Your task to perform on an android device: Add "bose soundlink" to the cart on costco.com Image 0: 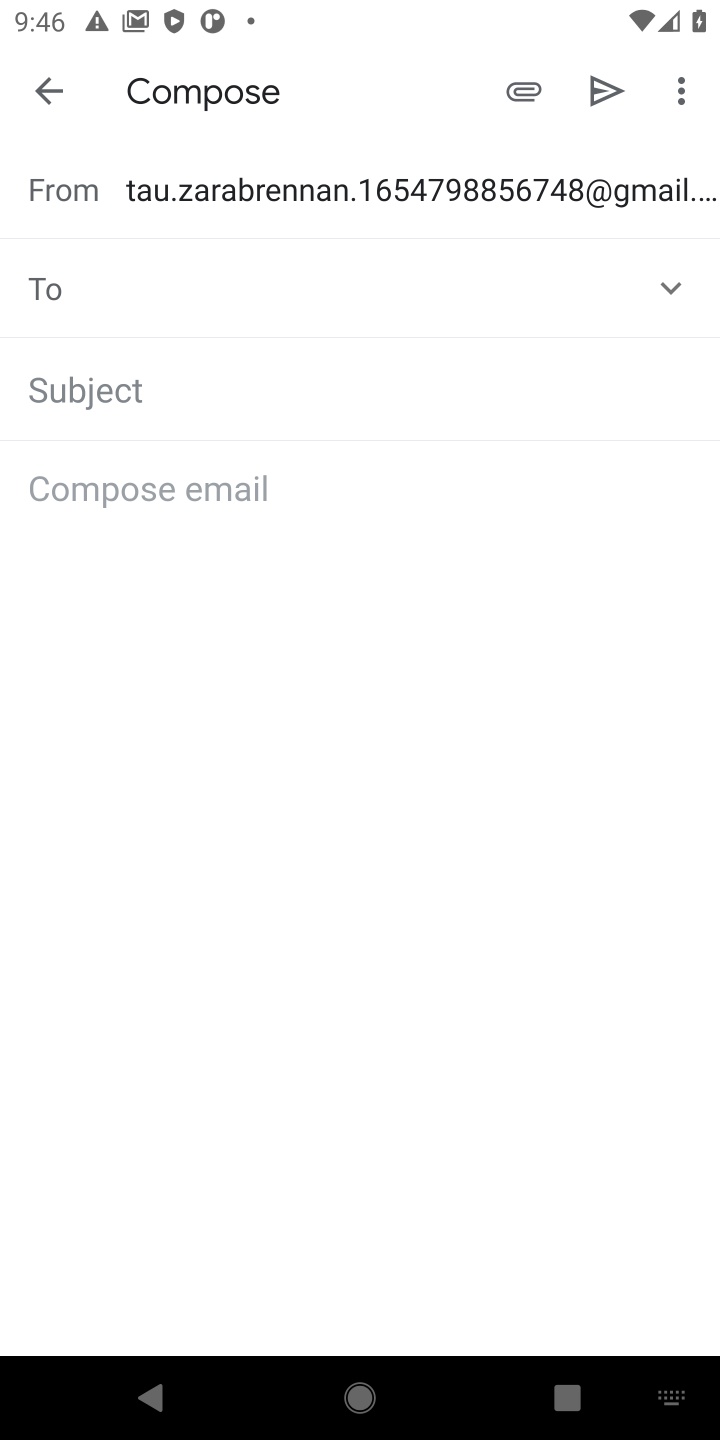
Step 0: press home button
Your task to perform on an android device: Add "bose soundlink" to the cart on costco.com Image 1: 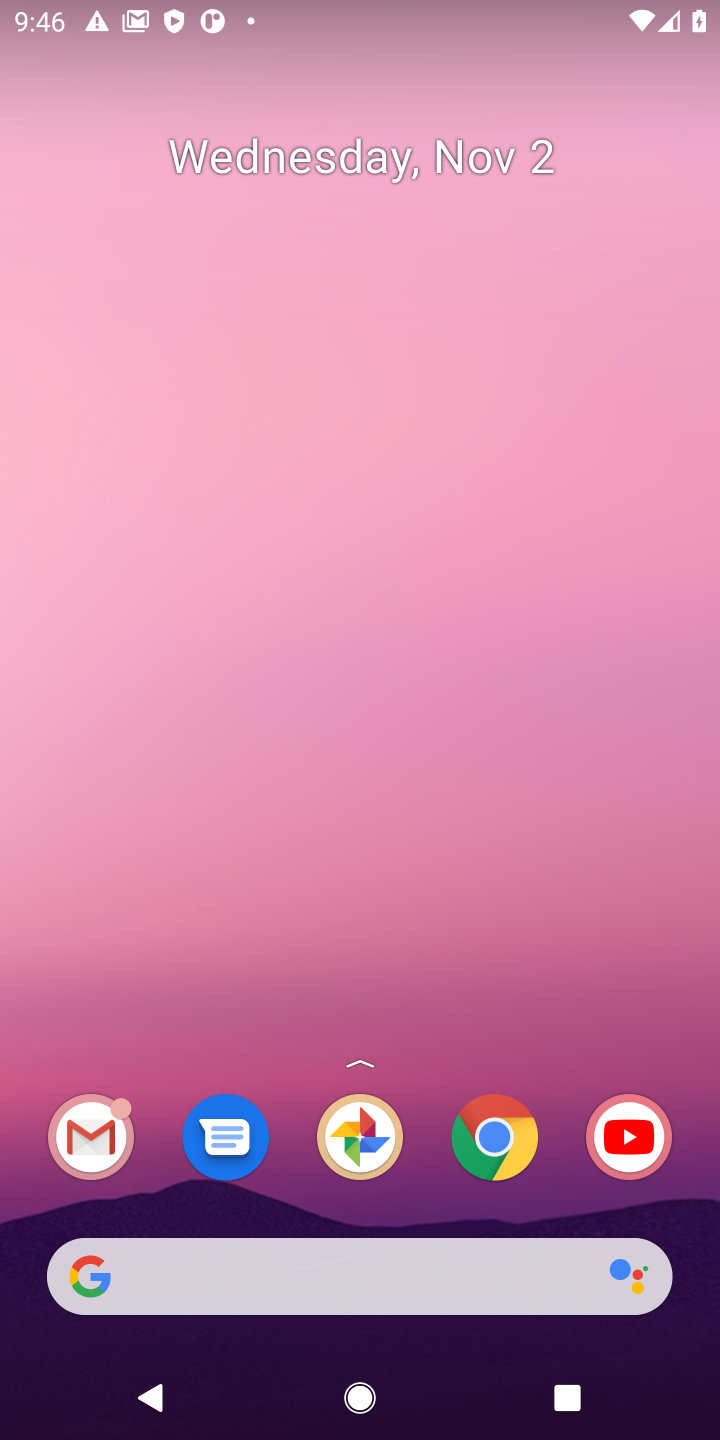
Step 1: click (498, 1145)
Your task to perform on an android device: Add "bose soundlink" to the cart on costco.com Image 2: 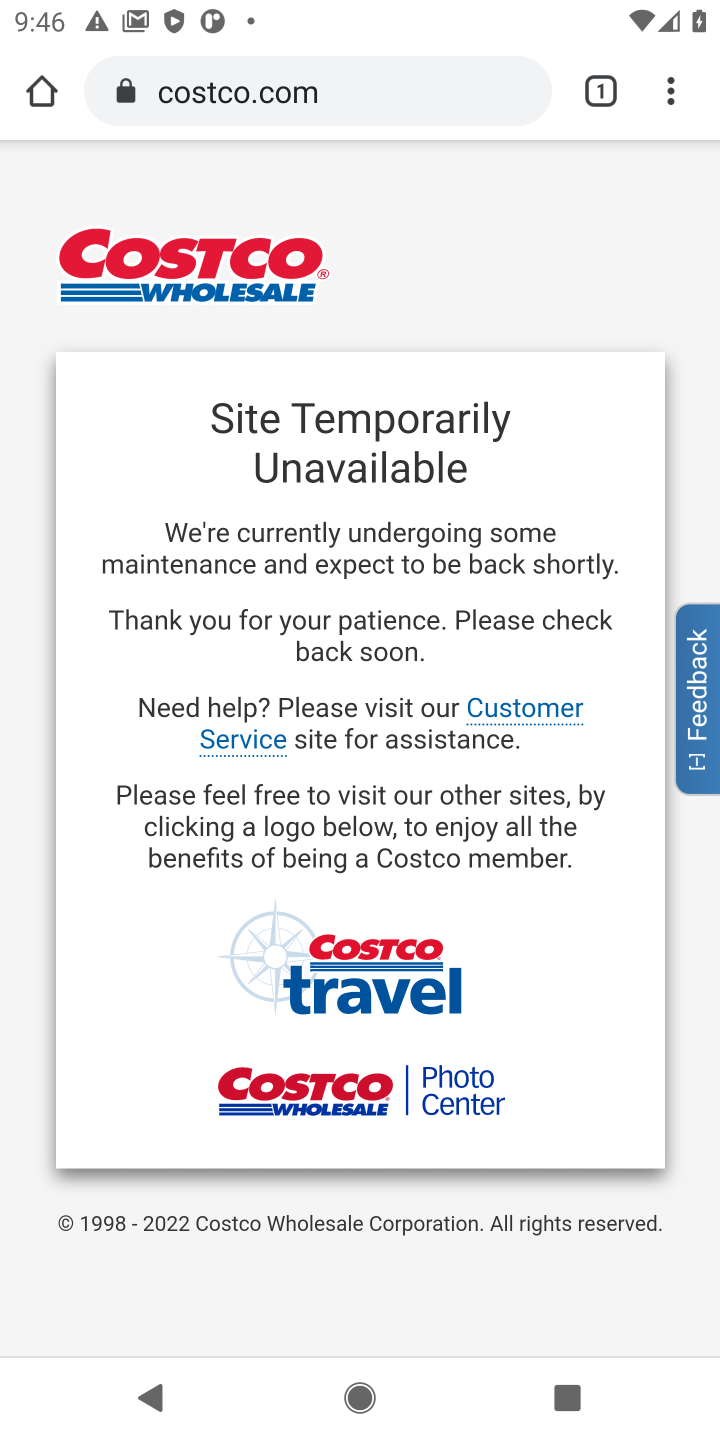
Step 2: click (338, 83)
Your task to perform on an android device: Add "bose soundlink" to the cart on costco.com Image 3: 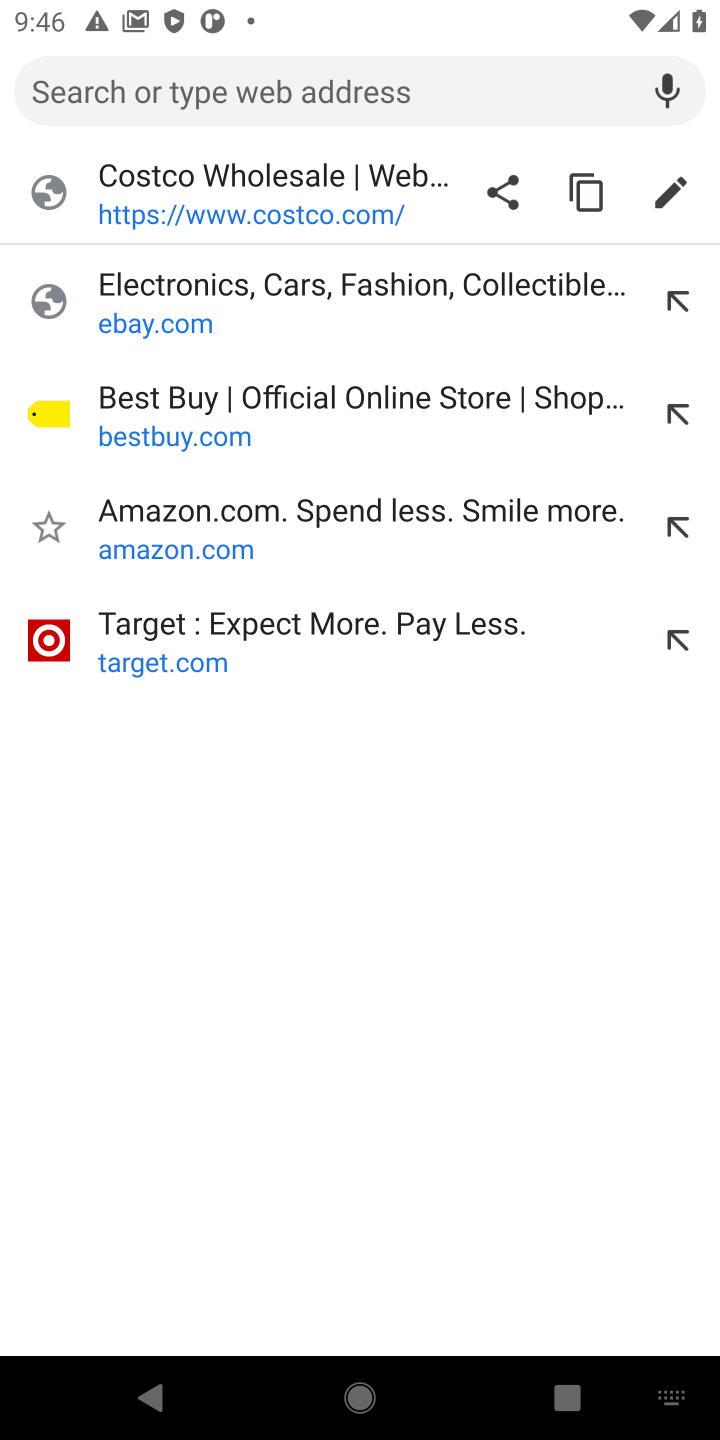
Step 3: click (141, 188)
Your task to perform on an android device: Add "bose soundlink" to the cart on costco.com Image 4: 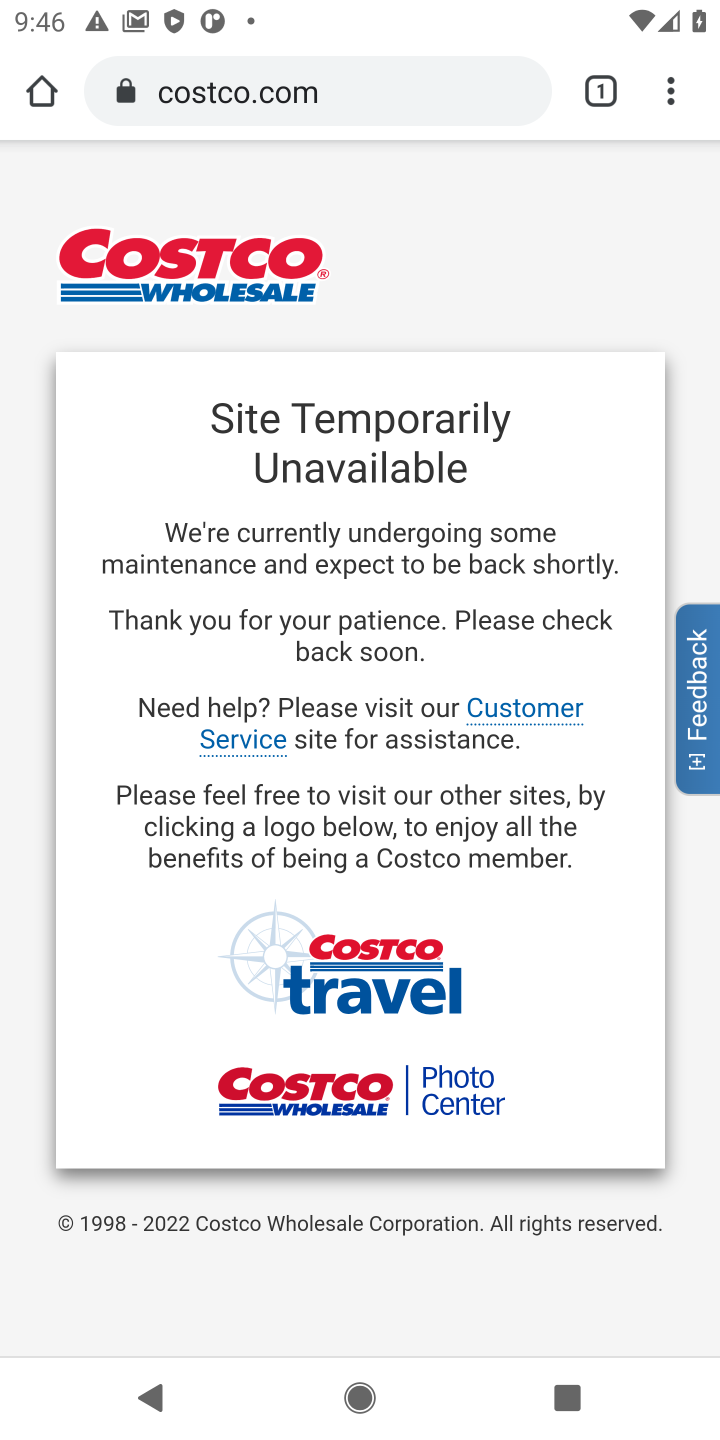
Step 4: task complete